Your task to perform on an android device: Open the stopwatch Image 0: 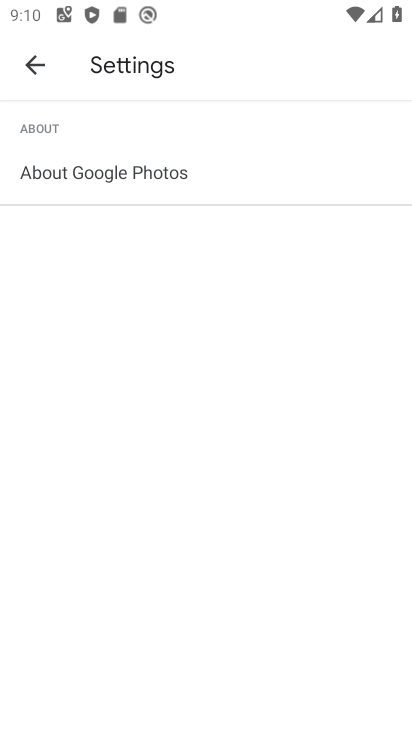
Step 0: press home button
Your task to perform on an android device: Open the stopwatch Image 1: 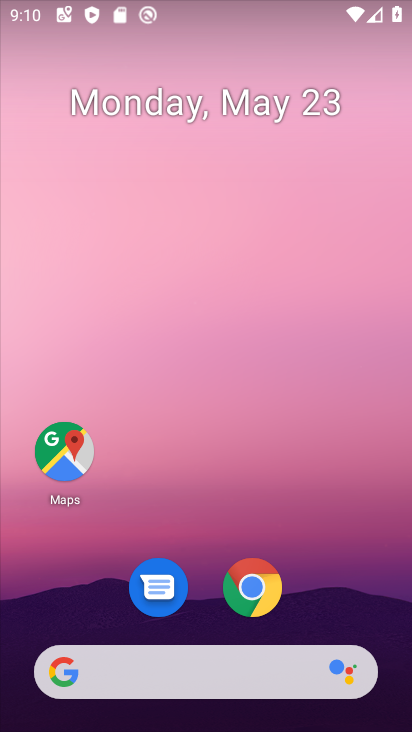
Step 1: drag from (341, 579) to (179, 111)
Your task to perform on an android device: Open the stopwatch Image 2: 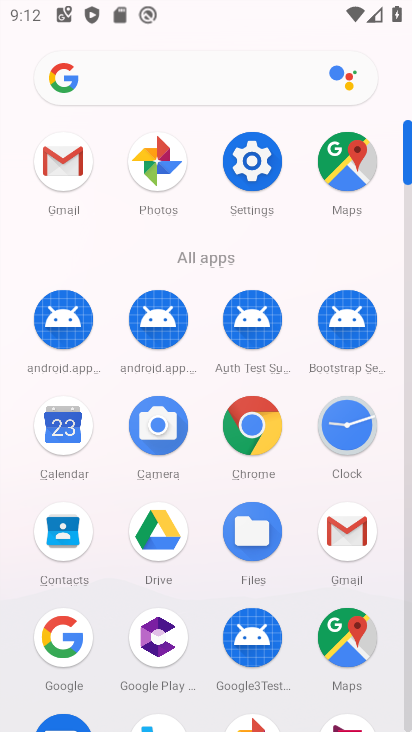
Step 2: click (364, 413)
Your task to perform on an android device: Open the stopwatch Image 3: 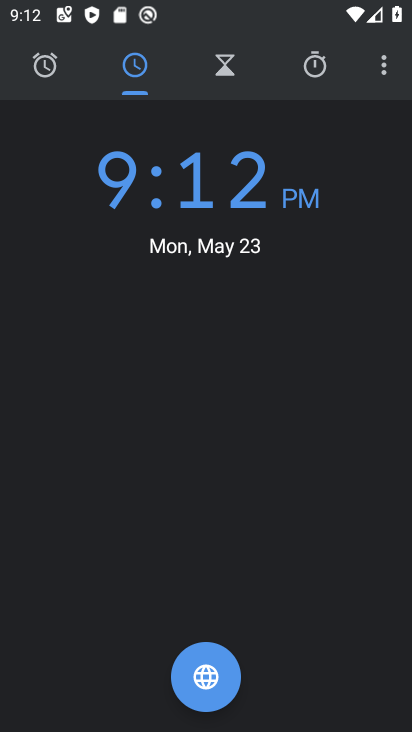
Step 3: click (316, 52)
Your task to perform on an android device: Open the stopwatch Image 4: 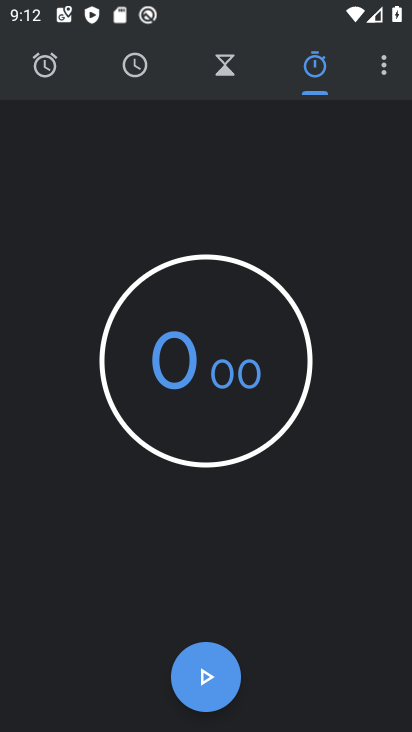
Step 4: click (205, 688)
Your task to perform on an android device: Open the stopwatch Image 5: 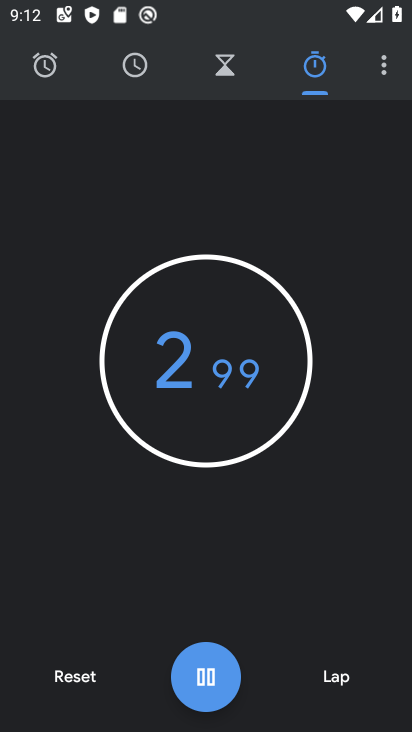
Step 5: task complete